Your task to perform on an android device: What's the weather going to be tomorrow? Image 0: 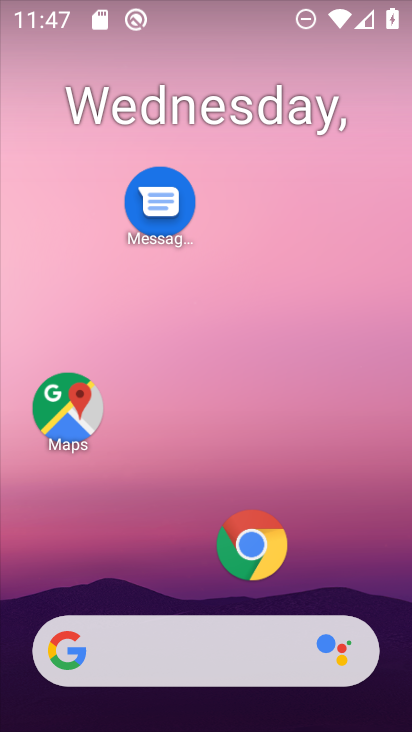
Step 0: drag from (192, 573) to (230, 215)
Your task to perform on an android device: What's the weather going to be tomorrow? Image 1: 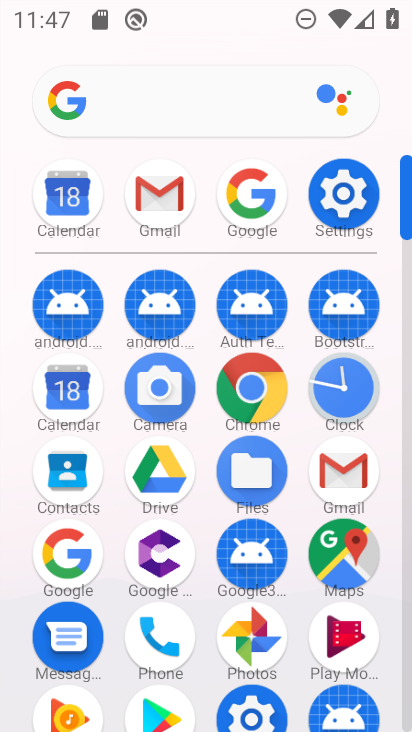
Step 1: click (76, 556)
Your task to perform on an android device: What's the weather going to be tomorrow? Image 2: 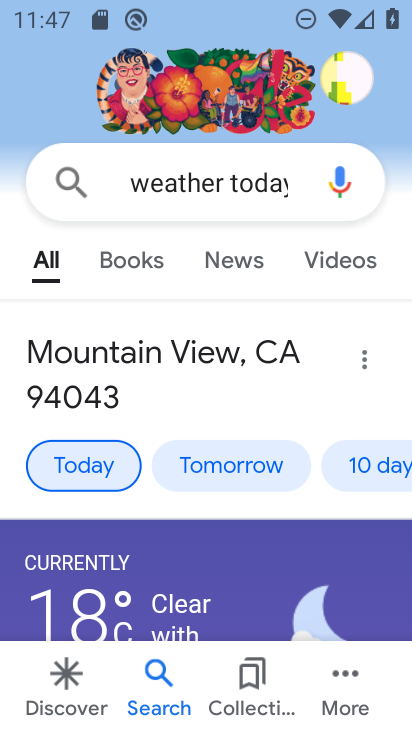
Step 2: click (244, 449)
Your task to perform on an android device: What's the weather going to be tomorrow? Image 3: 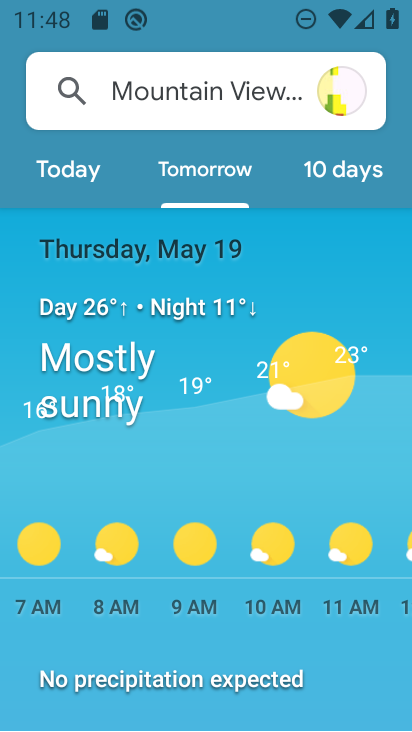
Step 3: task complete